Your task to perform on an android device: Search for Mexican restaurants on Maps Image 0: 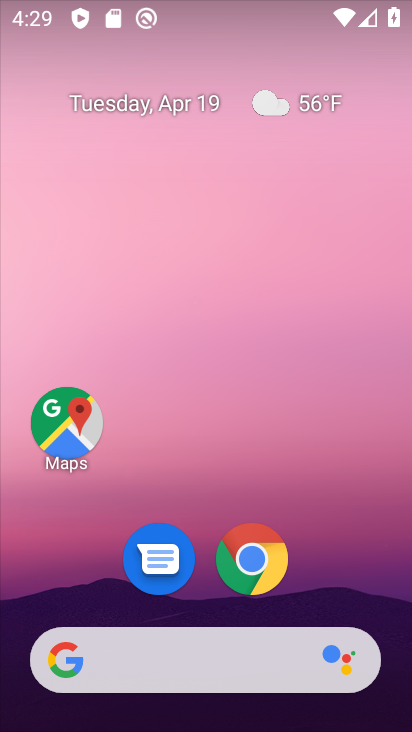
Step 0: drag from (378, 607) to (360, 163)
Your task to perform on an android device: Search for Mexican restaurants on Maps Image 1: 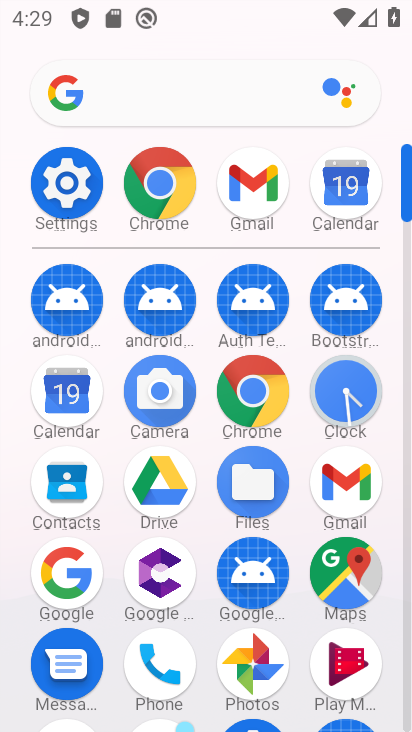
Step 1: click (339, 564)
Your task to perform on an android device: Search for Mexican restaurants on Maps Image 2: 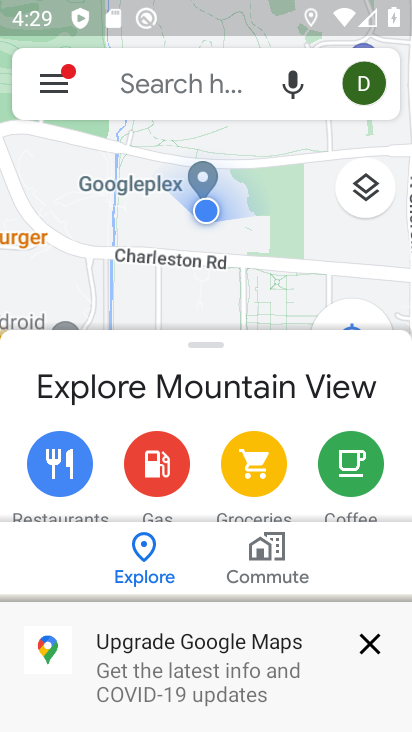
Step 2: click (167, 83)
Your task to perform on an android device: Search for Mexican restaurants on Maps Image 3: 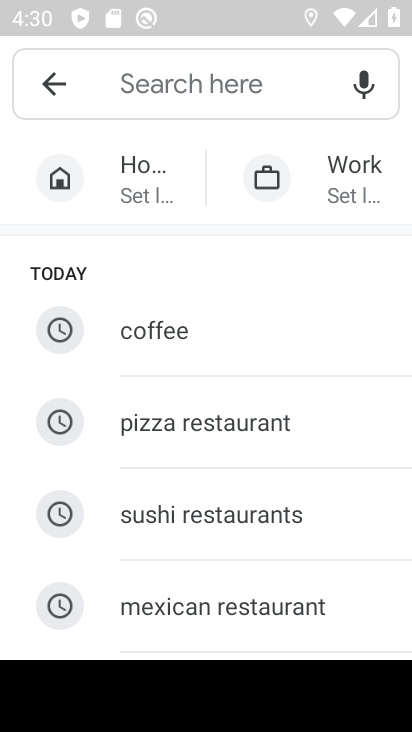
Step 3: type "Mexican restaurants "
Your task to perform on an android device: Search for Mexican restaurants on Maps Image 4: 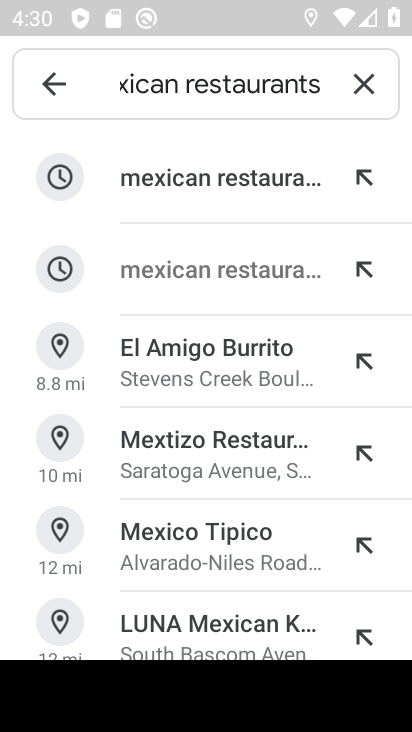
Step 4: click (271, 173)
Your task to perform on an android device: Search for Mexican restaurants on Maps Image 5: 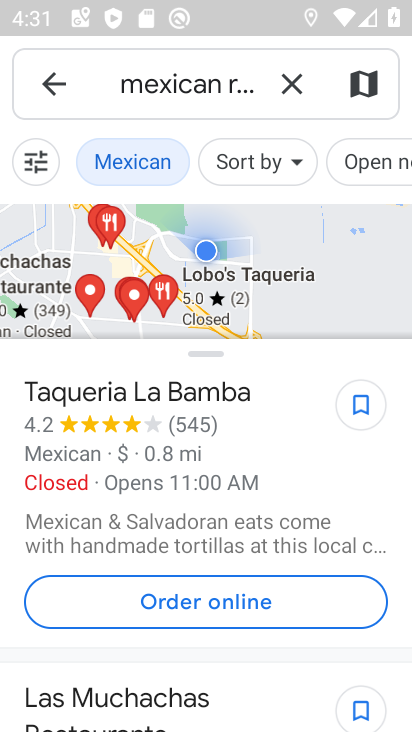
Step 5: task complete